Your task to perform on an android device: turn notification dots off Image 0: 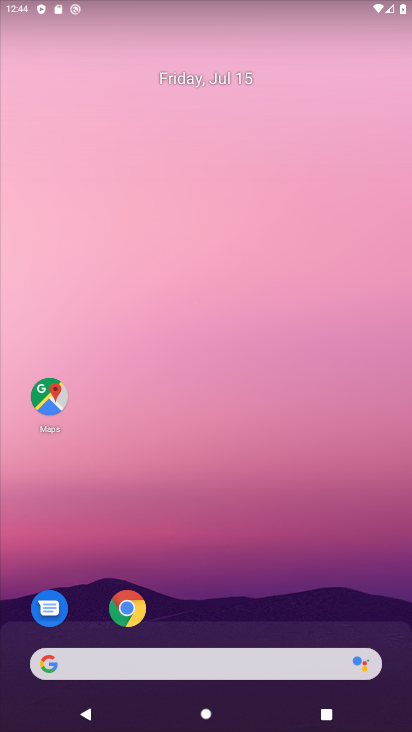
Step 0: drag from (245, 614) to (255, 131)
Your task to perform on an android device: turn notification dots off Image 1: 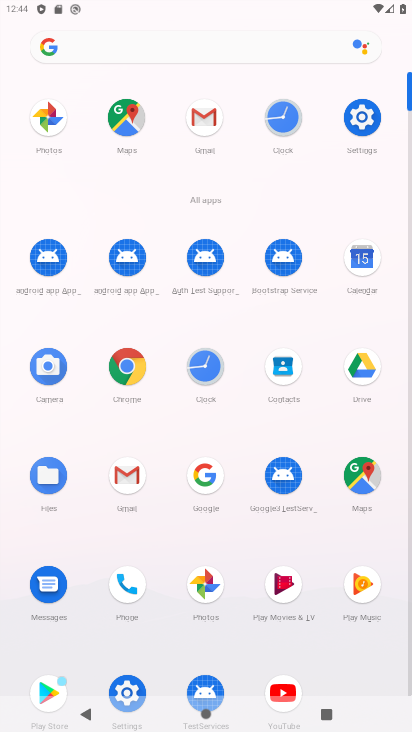
Step 1: click (364, 113)
Your task to perform on an android device: turn notification dots off Image 2: 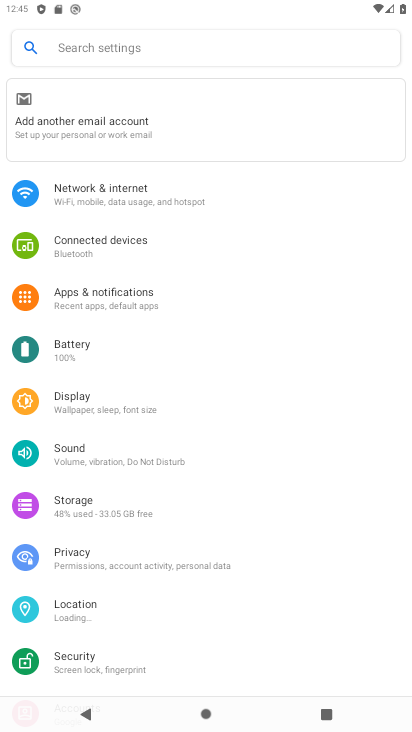
Step 2: click (148, 294)
Your task to perform on an android device: turn notification dots off Image 3: 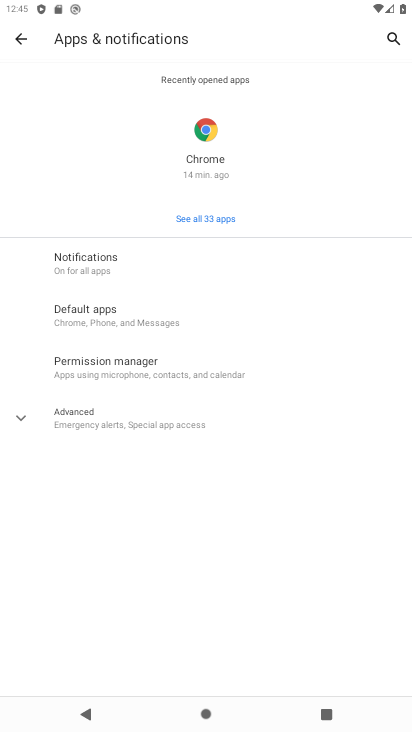
Step 3: click (142, 262)
Your task to perform on an android device: turn notification dots off Image 4: 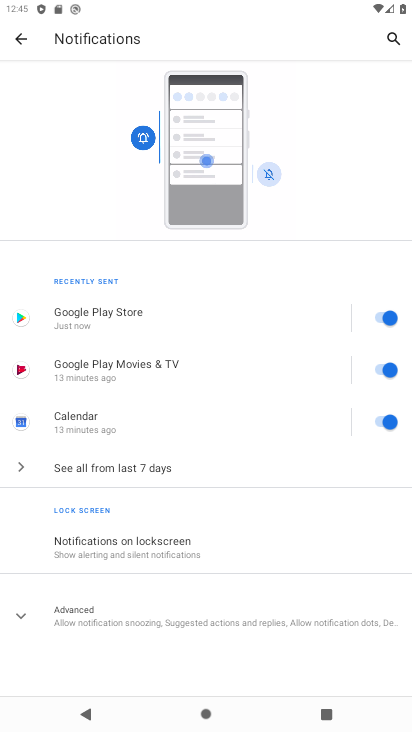
Step 4: click (99, 621)
Your task to perform on an android device: turn notification dots off Image 5: 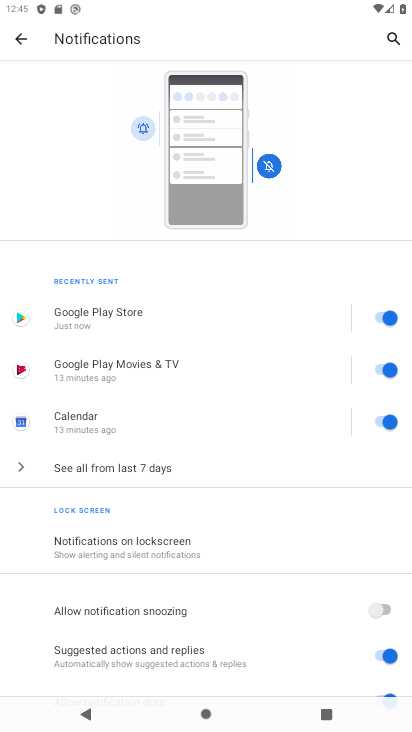
Step 5: drag from (214, 666) to (213, 195)
Your task to perform on an android device: turn notification dots off Image 6: 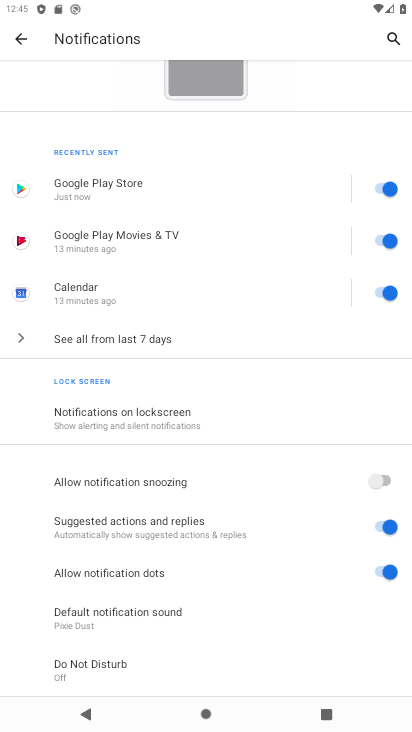
Step 6: click (372, 573)
Your task to perform on an android device: turn notification dots off Image 7: 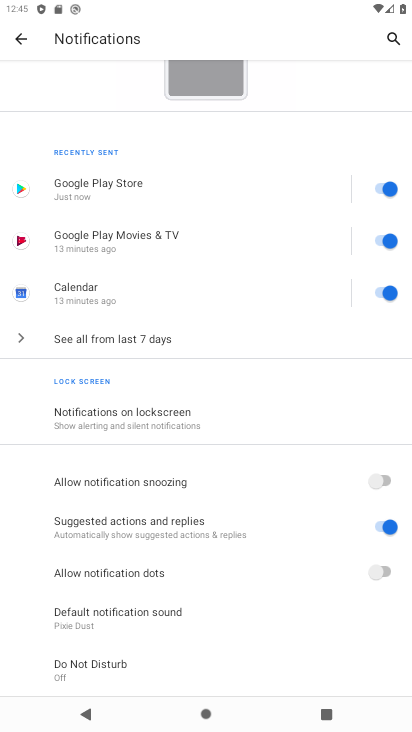
Step 7: task complete